Your task to perform on an android device: open app "Paramount+ | Peak Streaming" (install if not already installed) and go to login screen Image 0: 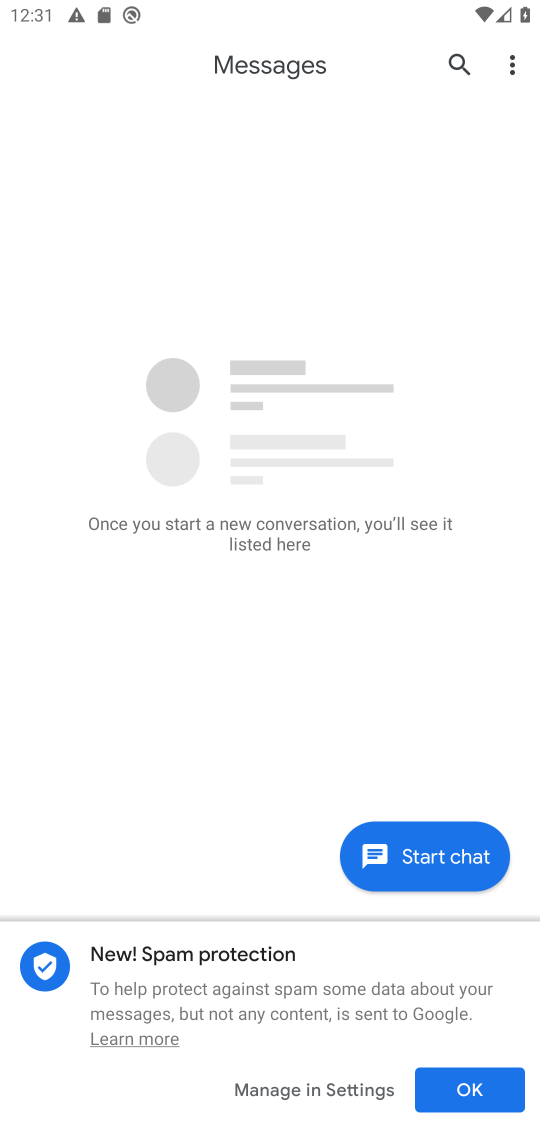
Step 0: press home button
Your task to perform on an android device: open app "Paramount+ | Peak Streaming" (install if not already installed) and go to login screen Image 1: 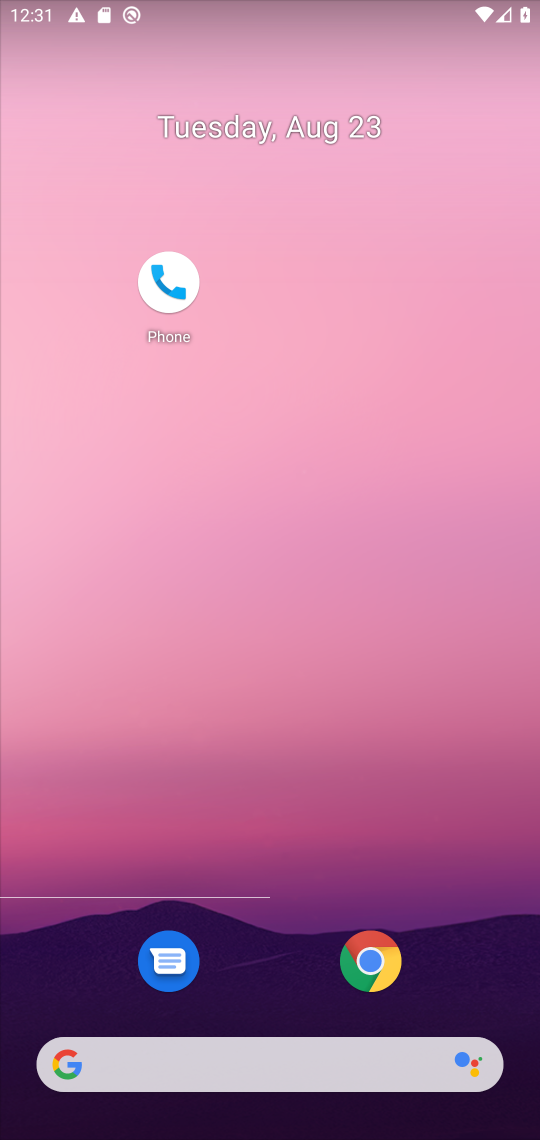
Step 1: drag from (272, 995) to (406, 125)
Your task to perform on an android device: open app "Paramount+ | Peak Streaming" (install if not already installed) and go to login screen Image 2: 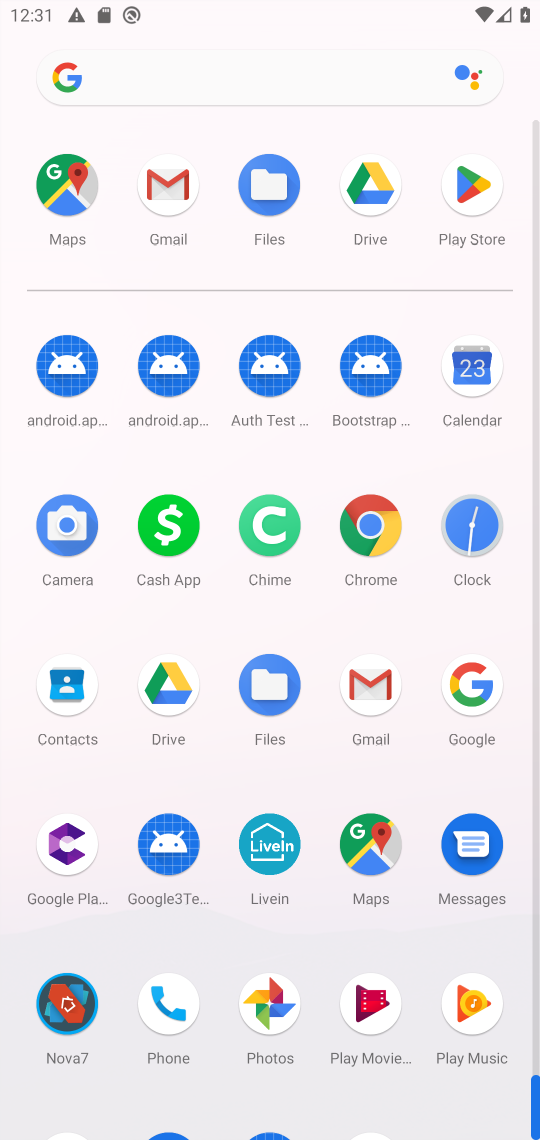
Step 2: click (486, 179)
Your task to perform on an android device: open app "Paramount+ | Peak Streaming" (install if not already installed) and go to login screen Image 3: 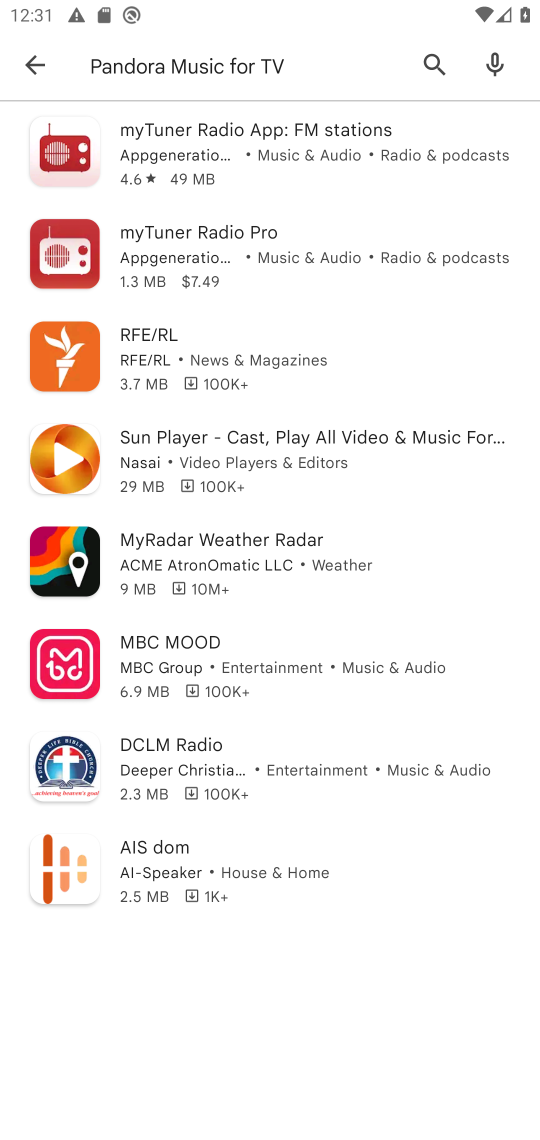
Step 3: click (438, 75)
Your task to perform on an android device: open app "Paramount+ | Peak Streaming" (install if not already installed) and go to login screen Image 4: 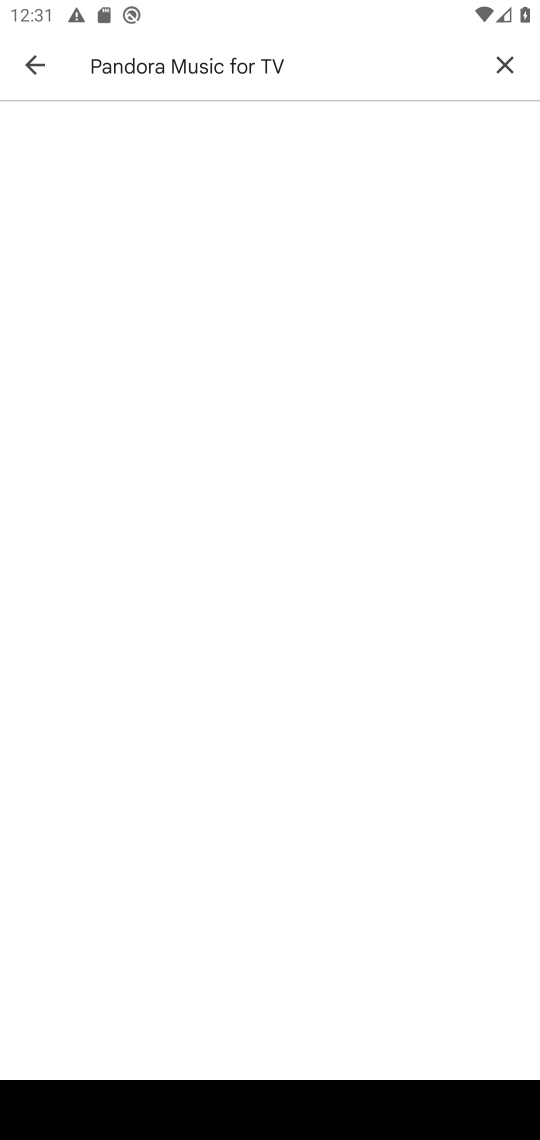
Step 4: click (519, 75)
Your task to perform on an android device: open app "Paramount+ | Peak Streaming" (install if not already installed) and go to login screen Image 5: 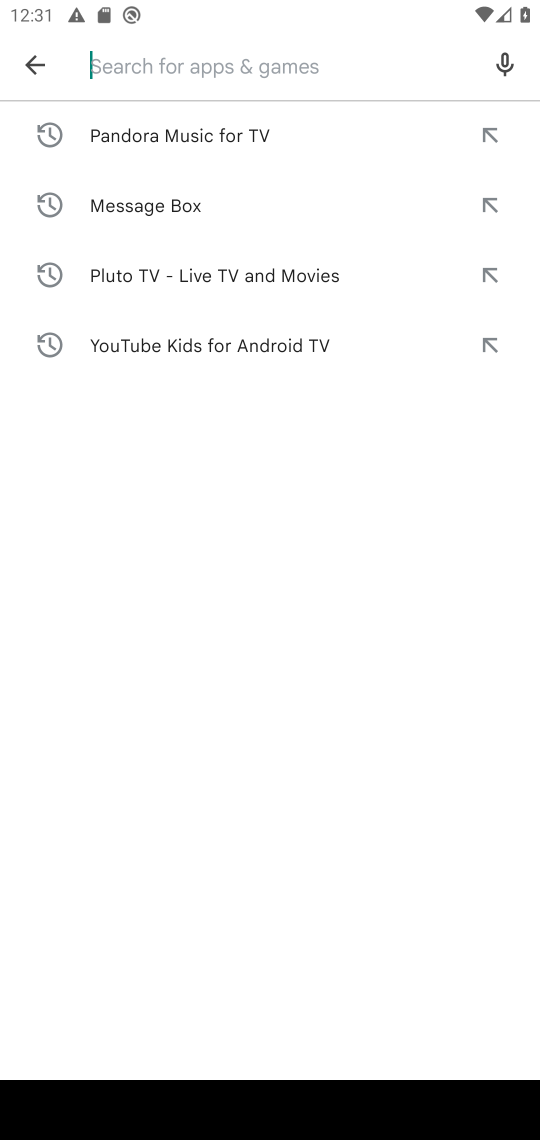
Step 5: type "paramount"
Your task to perform on an android device: open app "Paramount+ | Peak Streaming" (install if not already installed) and go to login screen Image 6: 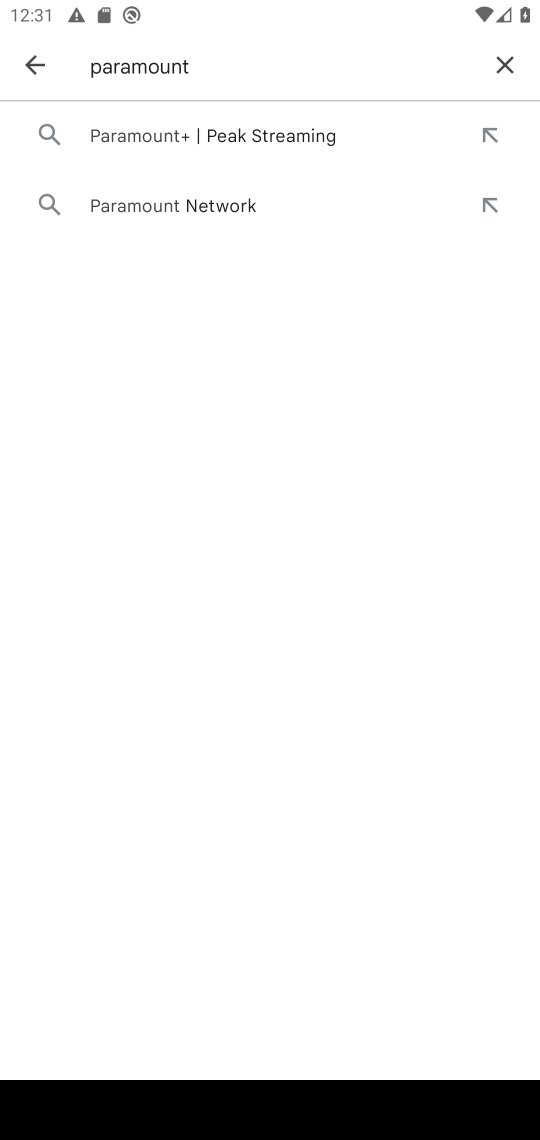
Step 6: click (147, 150)
Your task to perform on an android device: open app "Paramount+ | Peak Streaming" (install if not already installed) and go to login screen Image 7: 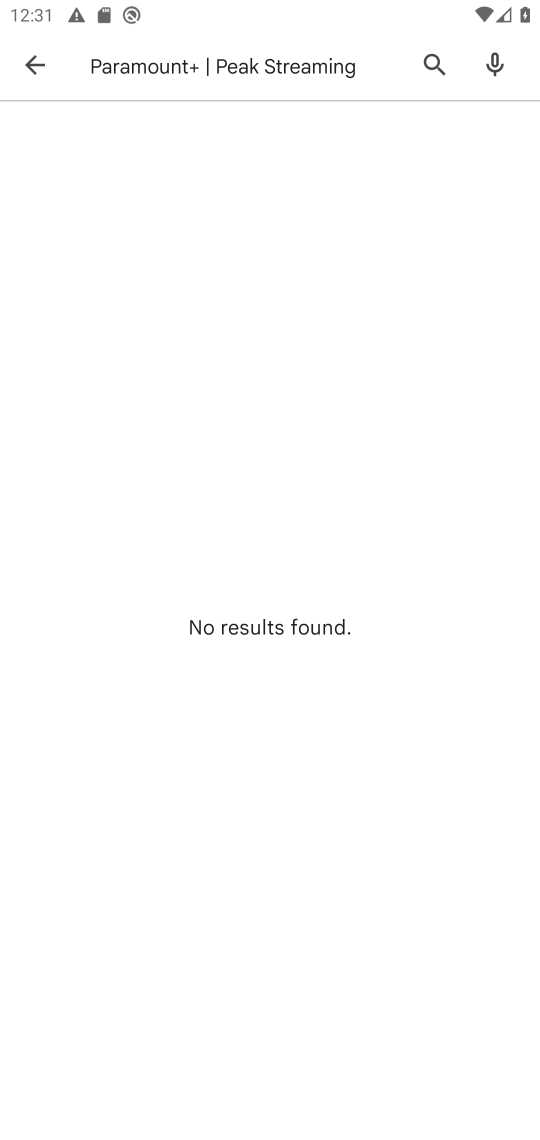
Step 7: task complete